Your task to perform on an android device: turn off smart reply in the gmail app Image 0: 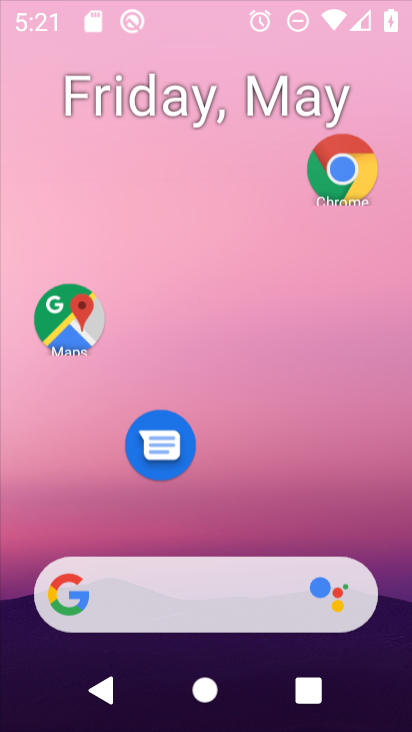
Step 0: click (338, 181)
Your task to perform on an android device: turn off smart reply in the gmail app Image 1: 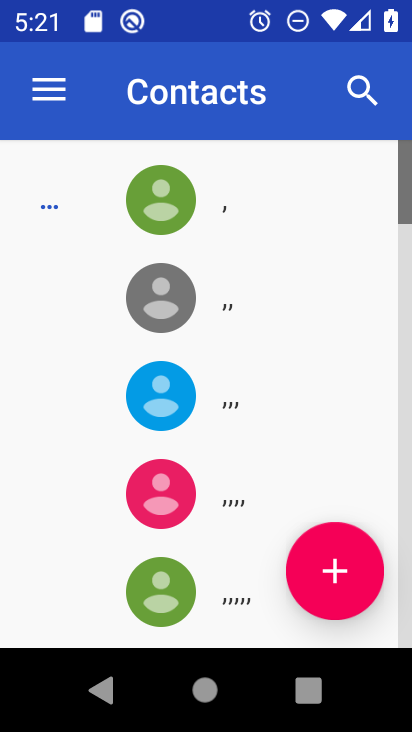
Step 1: press home button
Your task to perform on an android device: turn off smart reply in the gmail app Image 2: 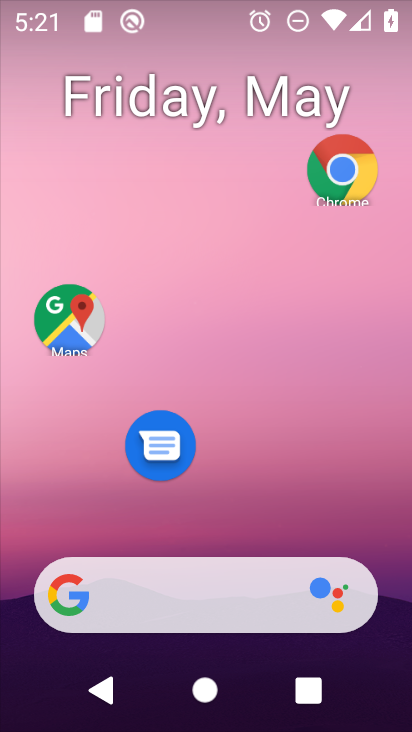
Step 2: drag from (313, 476) to (302, 172)
Your task to perform on an android device: turn off smart reply in the gmail app Image 3: 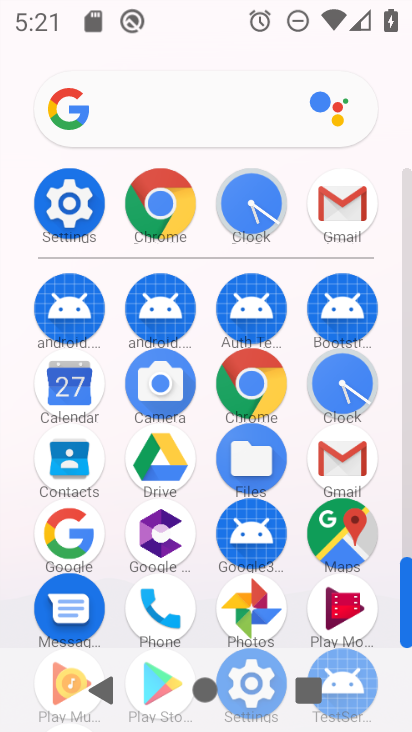
Step 3: click (159, 213)
Your task to perform on an android device: turn off smart reply in the gmail app Image 4: 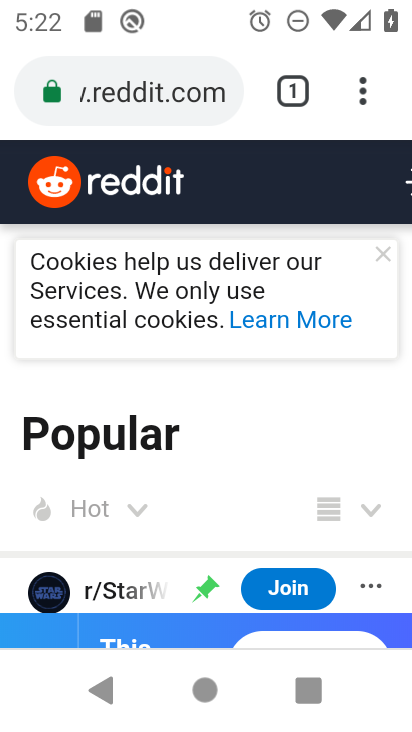
Step 4: press home button
Your task to perform on an android device: turn off smart reply in the gmail app Image 5: 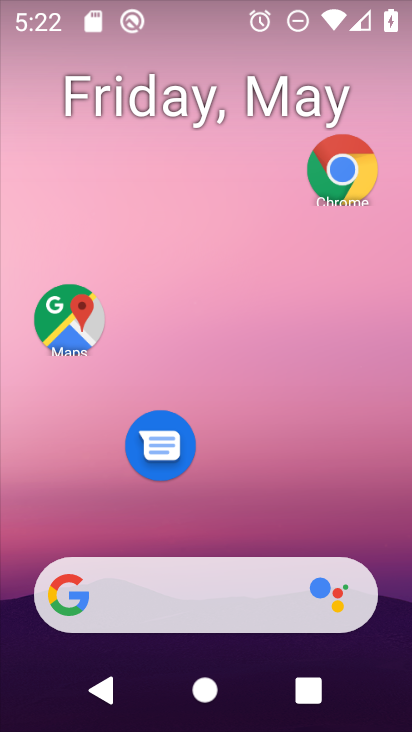
Step 5: drag from (225, 519) to (257, 71)
Your task to perform on an android device: turn off smart reply in the gmail app Image 6: 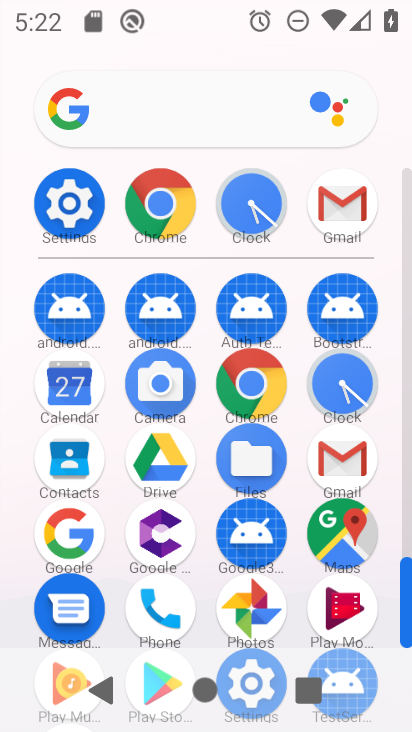
Step 6: click (355, 227)
Your task to perform on an android device: turn off smart reply in the gmail app Image 7: 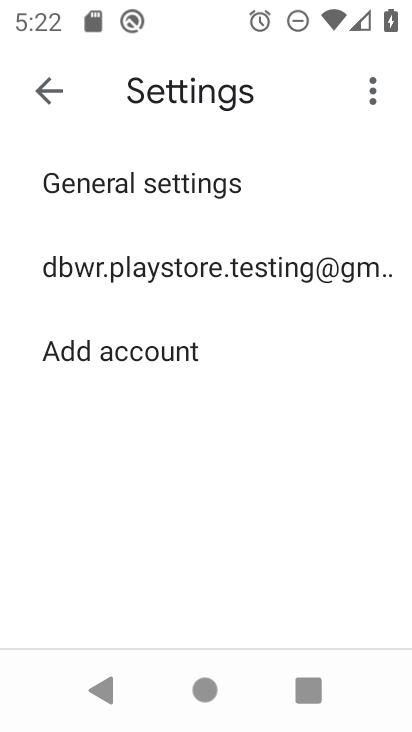
Step 7: click (250, 272)
Your task to perform on an android device: turn off smart reply in the gmail app Image 8: 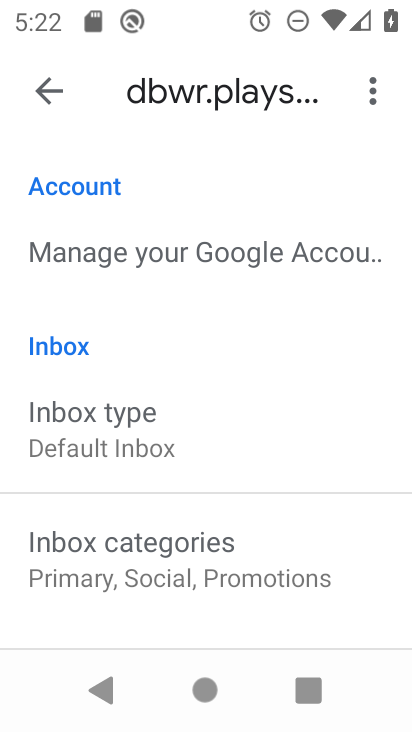
Step 8: drag from (158, 523) to (256, 114)
Your task to perform on an android device: turn off smart reply in the gmail app Image 9: 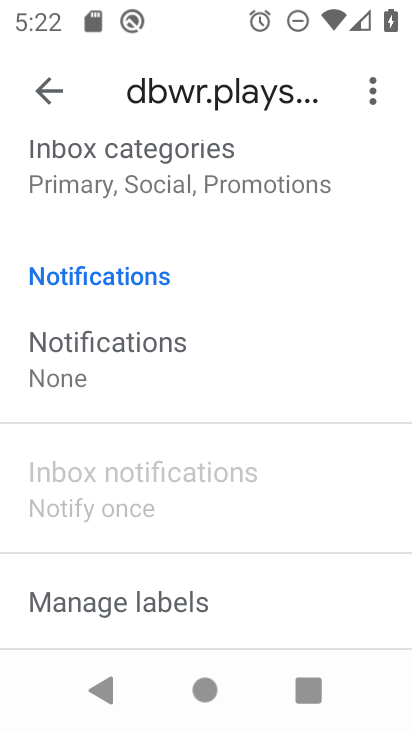
Step 9: drag from (164, 533) to (202, 170)
Your task to perform on an android device: turn off smart reply in the gmail app Image 10: 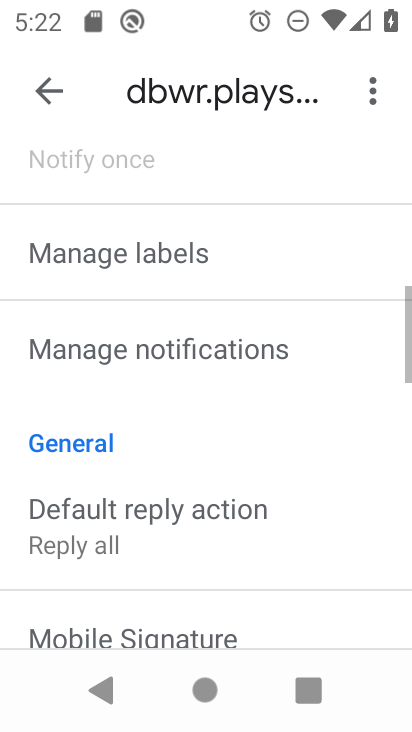
Step 10: drag from (147, 545) to (210, 134)
Your task to perform on an android device: turn off smart reply in the gmail app Image 11: 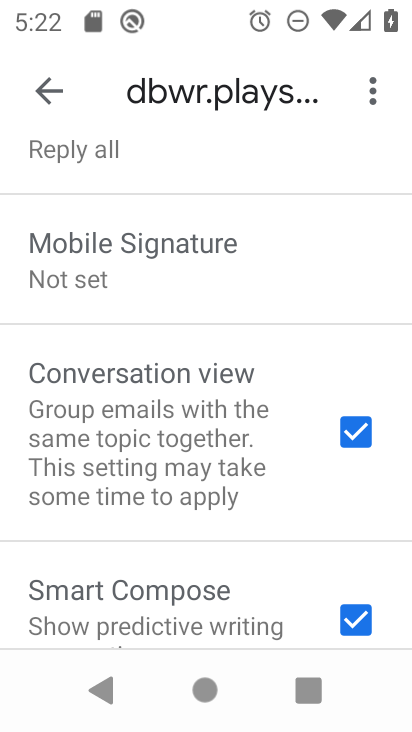
Step 11: drag from (198, 556) to (252, 231)
Your task to perform on an android device: turn off smart reply in the gmail app Image 12: 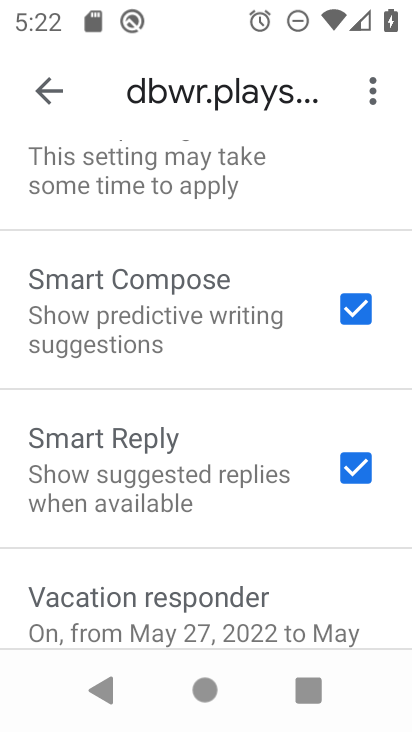
Step 12: click (360, 461)
Your task to perform on an android device: turn off smart reply in the gmail app Image 13: 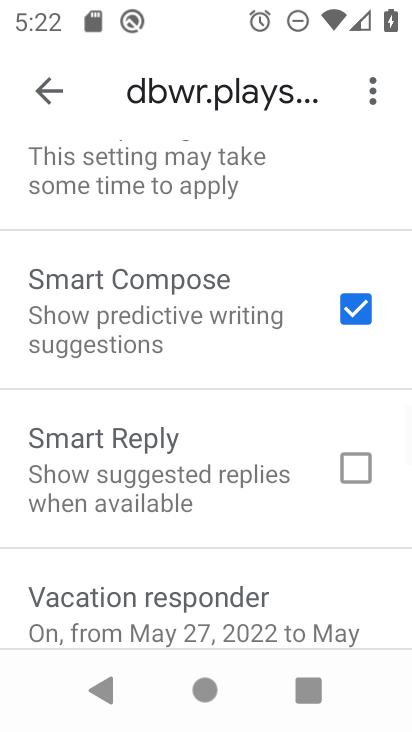
Step 13: task complete